Your task to perform on an android device: turn on notifications settings in the gmail app Image 0: 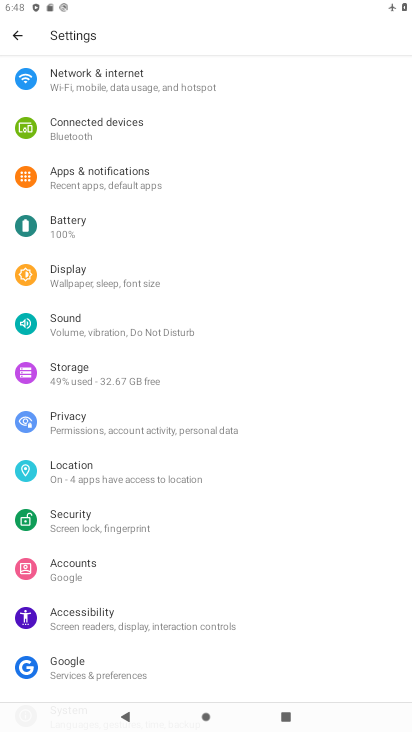
Step 0: press home button
Your task to perform on an android device: turn on notifications settings in the gmail app Image 1: 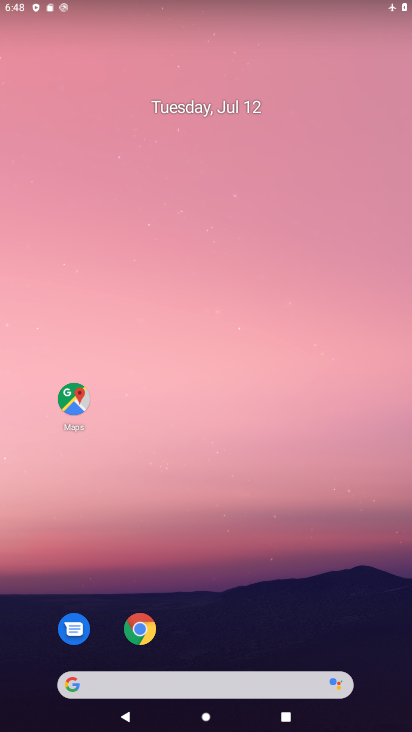
Step 1: drag from (212, 592) to (148, 61)
Your task to perform on an android device: turn on notifications settings in the gmail app Image 2: 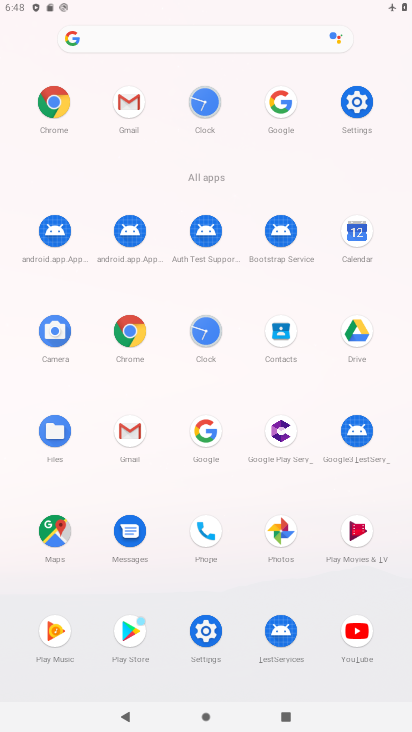
Step 2: click (124, 105)
Your task to perform on an android device: turn on notifications settings in the gmail app Image 3: 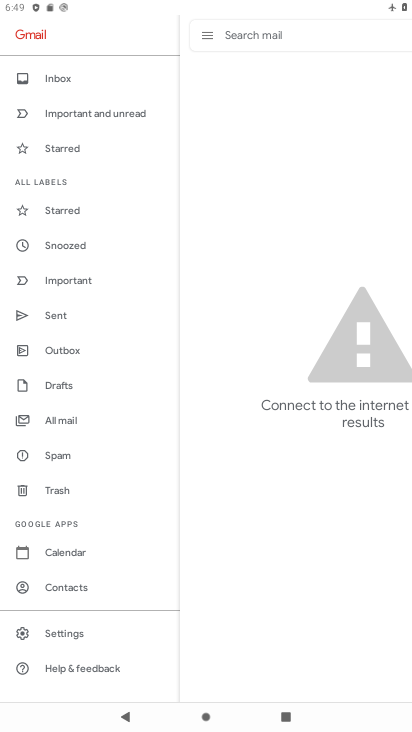
Step 3: click (57, 634)
Your task to perform on an android device: turn on notifications settings in the gmail app Image 4: 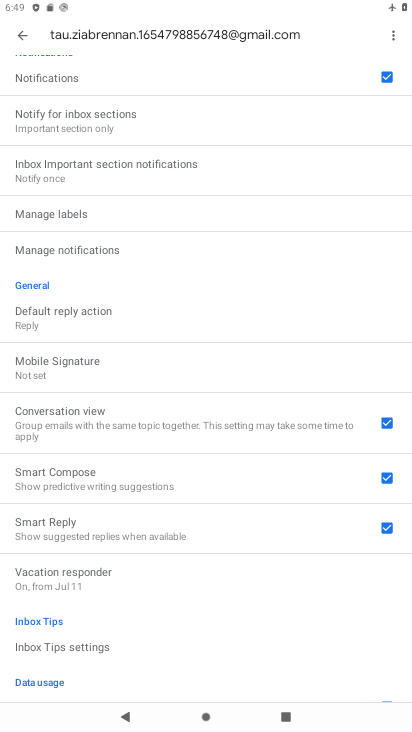
Step 4: drag from (218, 184) to (214, 455)
Your task to perform on an android device: turn on notifications settings in the gmail app Image 5: 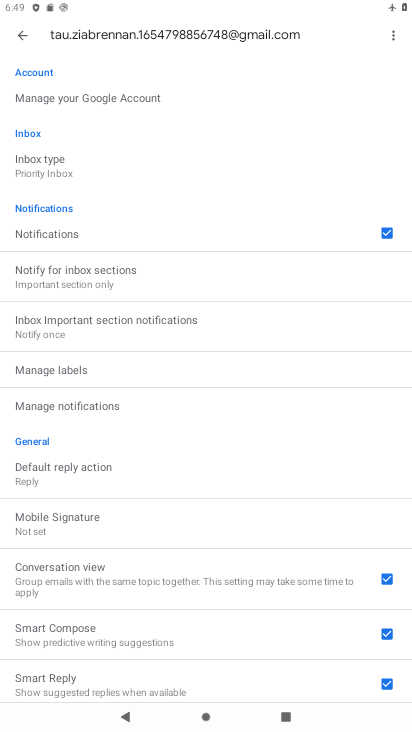
Step 5: click (76, 405)
Your task to perform on an android device: turn on notifications settings in the gmail app Image 6: 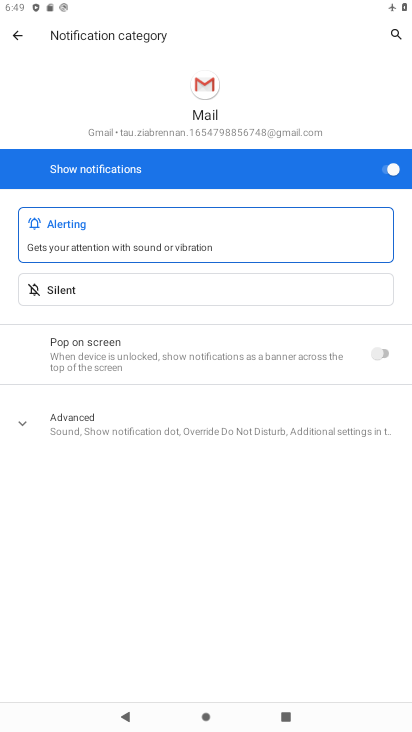
Step 6: task complete